Your task to perform on an android device: open sync settings in chrome Image 0: 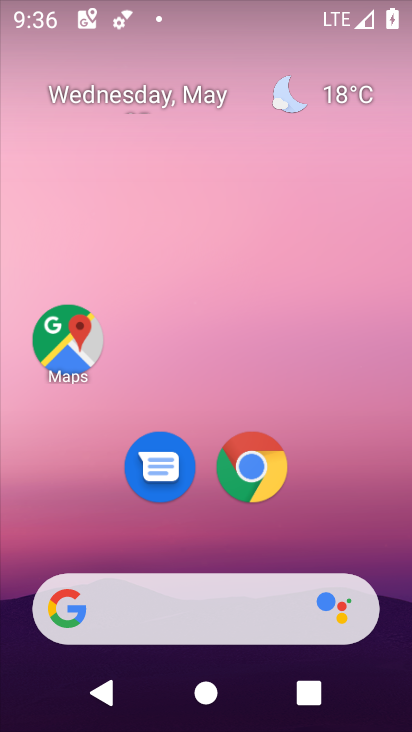
Step 0: click (260, 460)
Your task to perform on an android device: open sync settings in chrome Image 1: 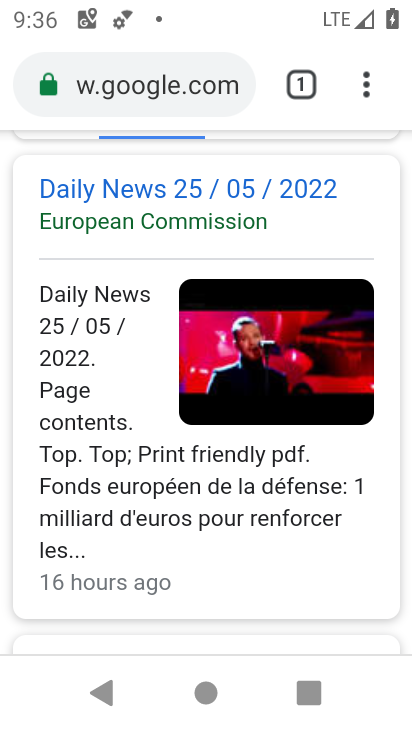
Step 1: drag from (369, 76) to (173, 536)
Your task to perform on an android device: open sync settings in chrome Image 2: 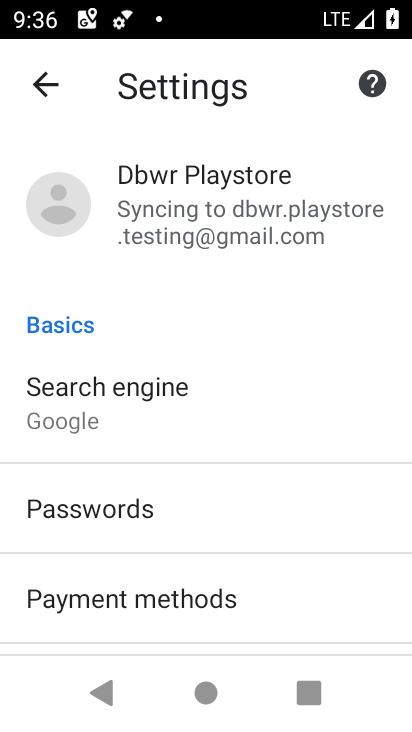
Step 2: click (173, 246)
Your task to perform on an android device: open sync settings in chrome Image 3: 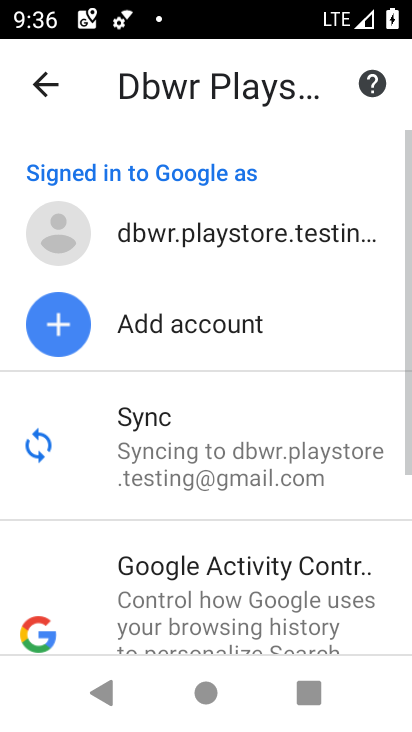
Step 3: click (172, 459)
Your task to perform on an android device: open sync settings in chrome Image 4: 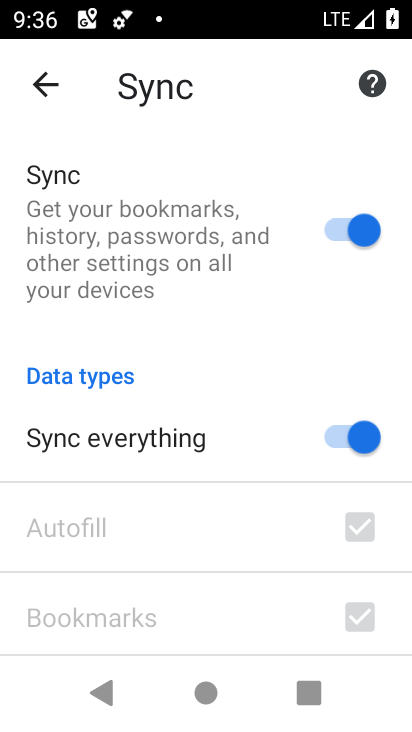
Step 4: task complete